Your task to perform on an android device: open app "Messages" (install if not already installed) Image 0: 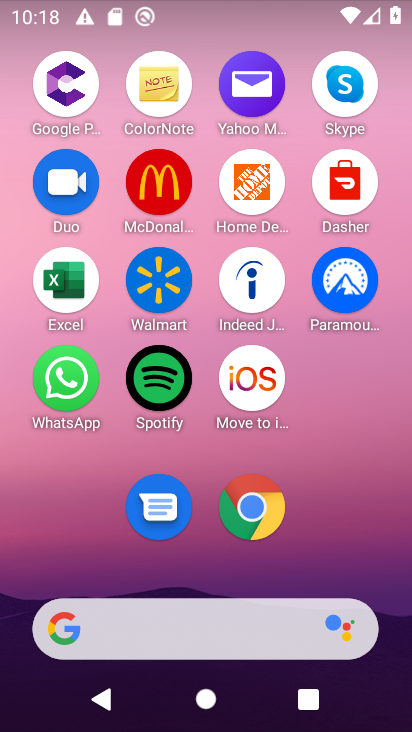
Step 0: drag from (394, 659) to (383, 164)
Your task to perform on an android device: open app "Messages" (install if not already installed) Image 1: 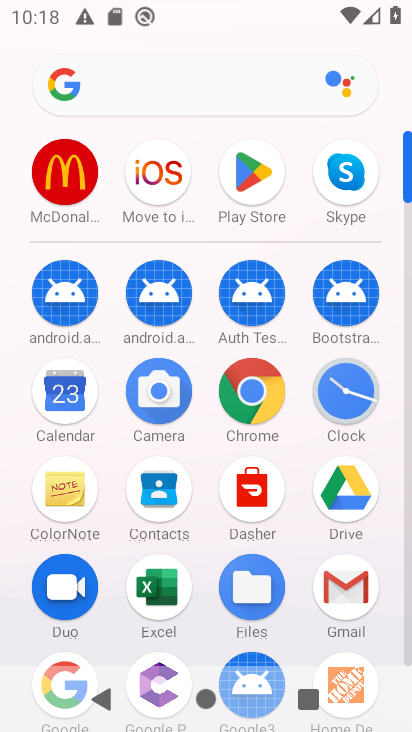
Step 1: click (408, 637)
Your task to perform on an android device: open app "Messages" (install if not already installed) Image 2: 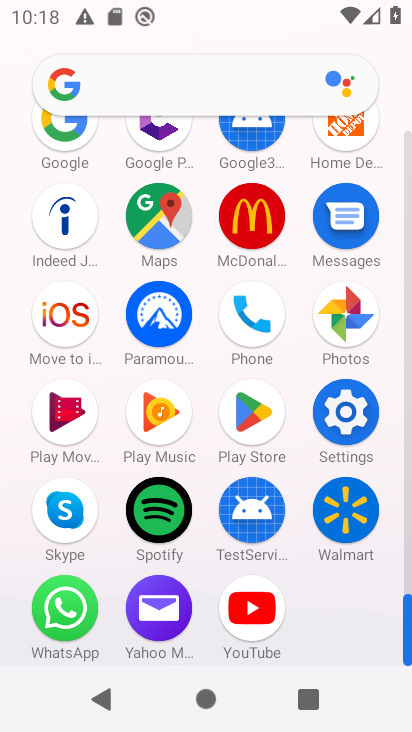
Step 2: click (251, 411)
Your task to perform on an android device: open app "Messages" (install if not already installed) Image 3: 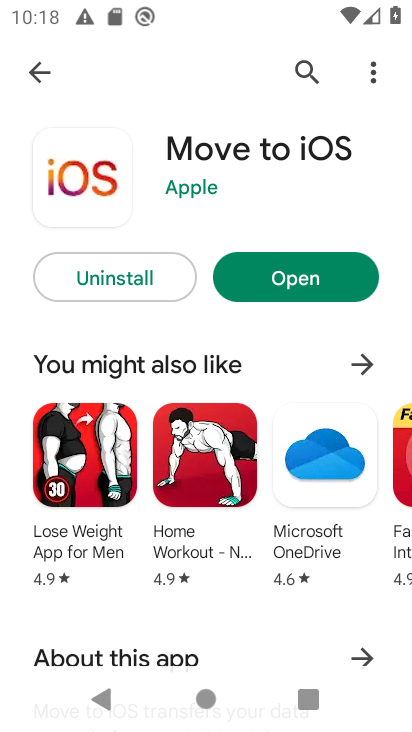
Step 3: click (305, 69)
Your task to perform on an android device: open app "Messages" (install if not already installed) Image 4: 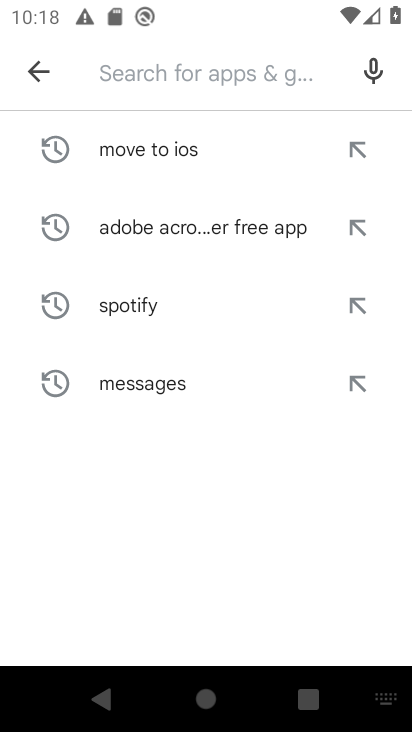
Step 4: type "Messages"
Your task to perform on an android device: open app "Messages" (install if not already installed) Image 5: 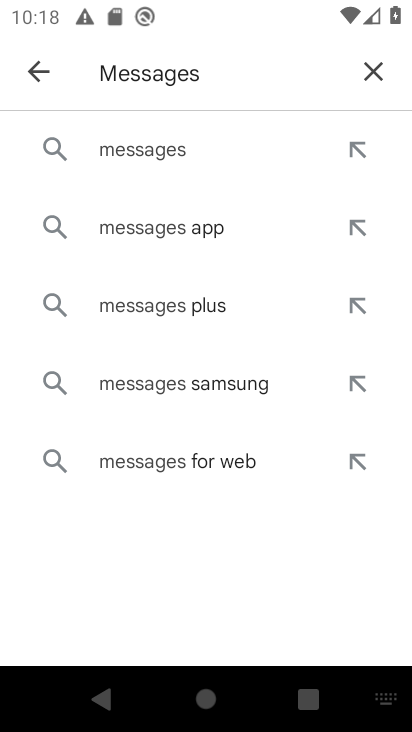
Step 5: click (139, 142)
Your task to perform on an android device: open app "Messages" (install if not already installed) Image 6: 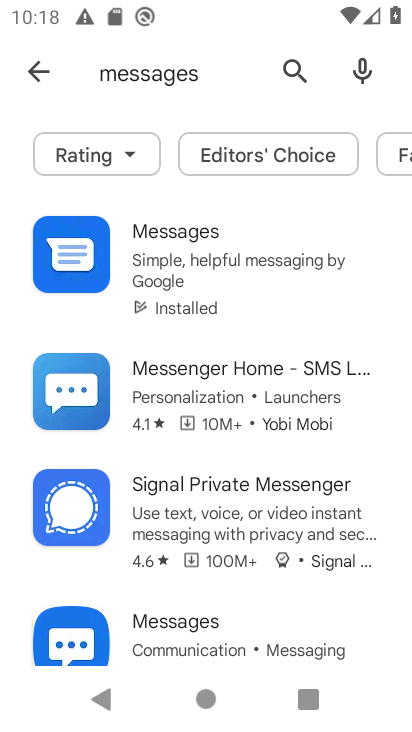
Step 6: click (170, 250)
Your task to perform on an android device: open app "Messages" (install if not already installed) Image 7: 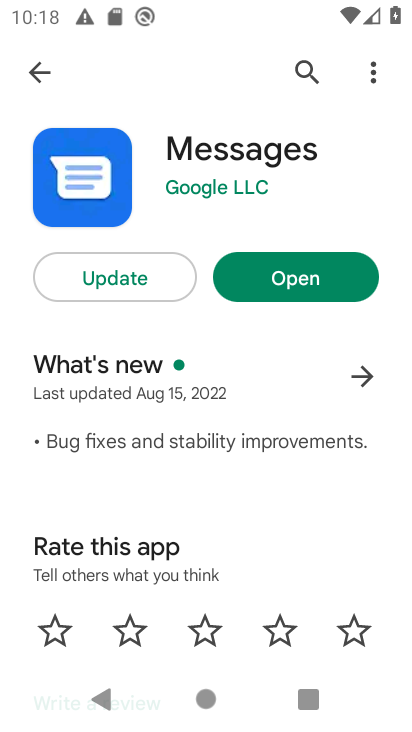
Step 7: click (294, 286)
Your task to perform on an android device: open app "Messages" (install if not already installed) Image 8: 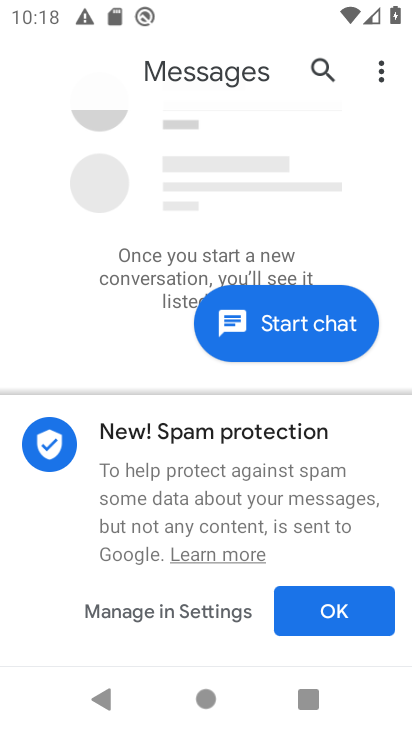
Step 8: task complete